Your task to perform on an android device: show emergency info Image 0: 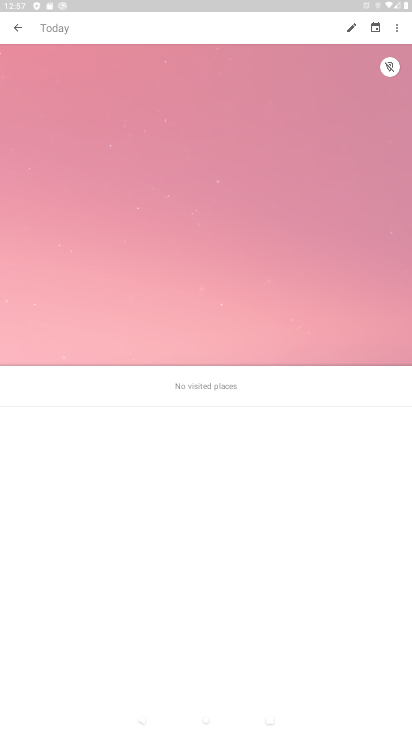
Step 0: press home button
Your task to perform on an android device: show emergency info Image 1: 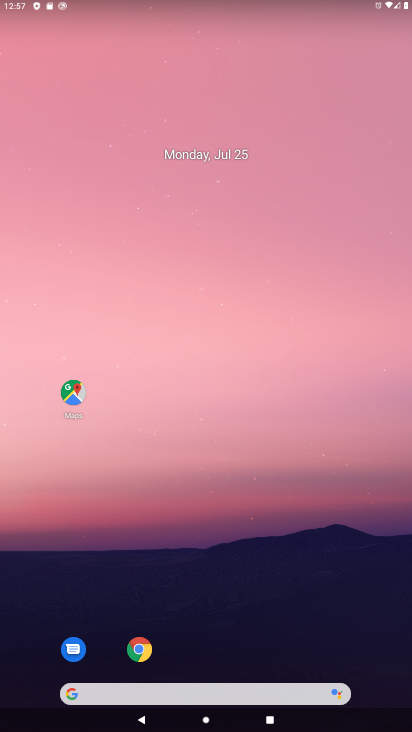
Step 1: drag from (264, 524) to (269, 87)
Your task to perform on an android device: show emergency info Image 2: 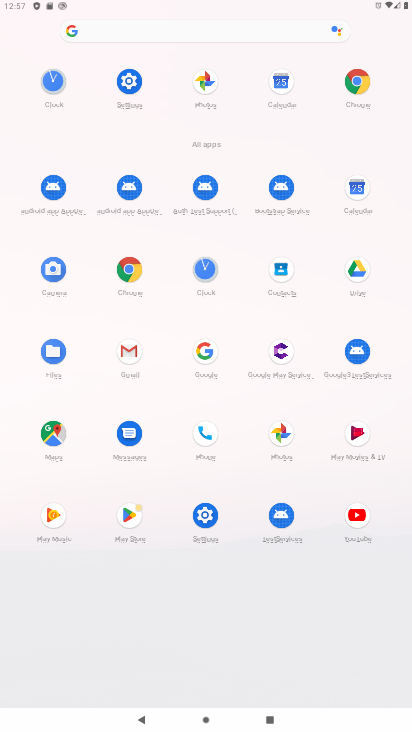
Step 2: click (202, 505)
Your task to perform on an android device: show emergency info Image 3: 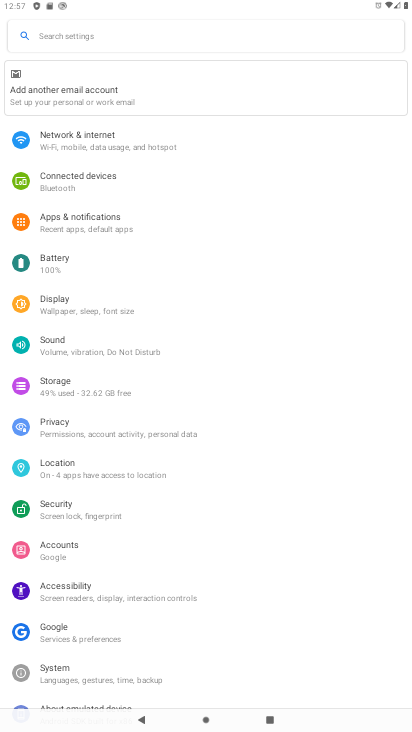
Step 3: drag from (296, 656) to (306, 230)
Your task to perform on an android device: show emergency info Image 4: 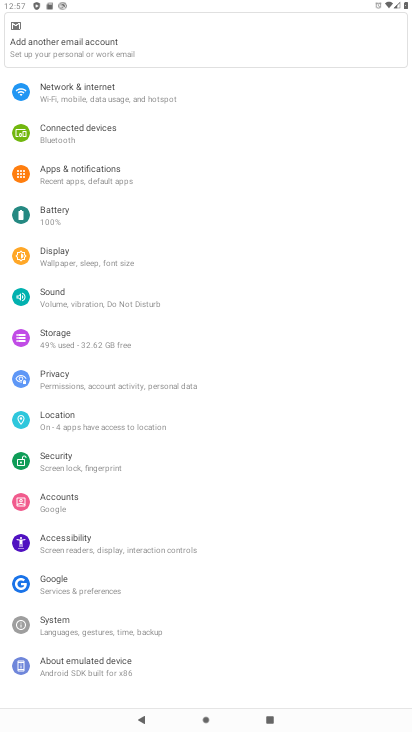
Step 4: click (90, 665)
Your task to perform on an android device: show emergency info Image 5: 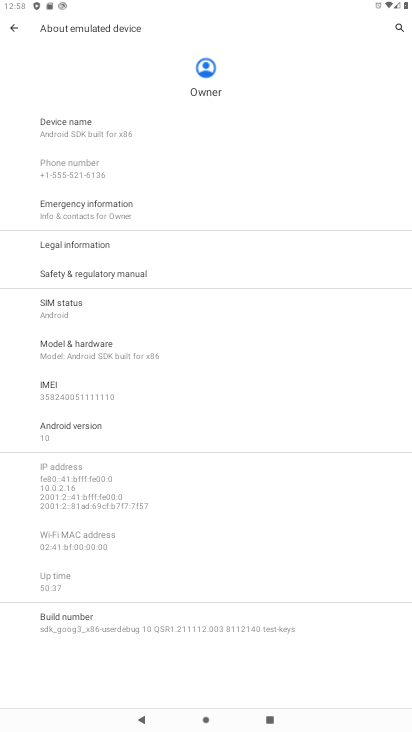
Step 5: click (77, 199)
Your task to perform on an android device: show emergency info Image 6: 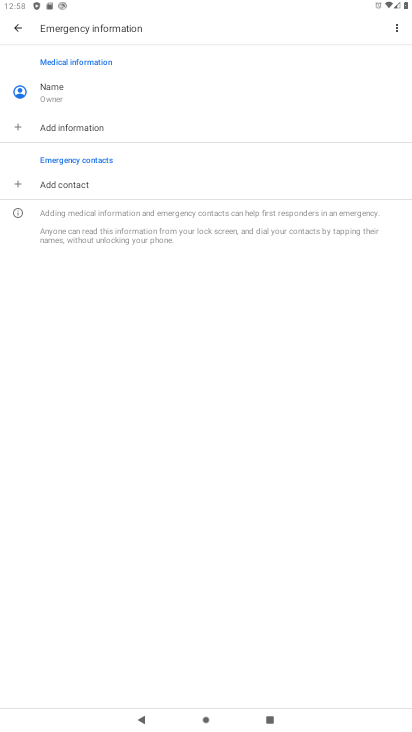
Step 6: task complete